Your task to perform on an android device: open chrome and create a bookmark for the current page Image 0: 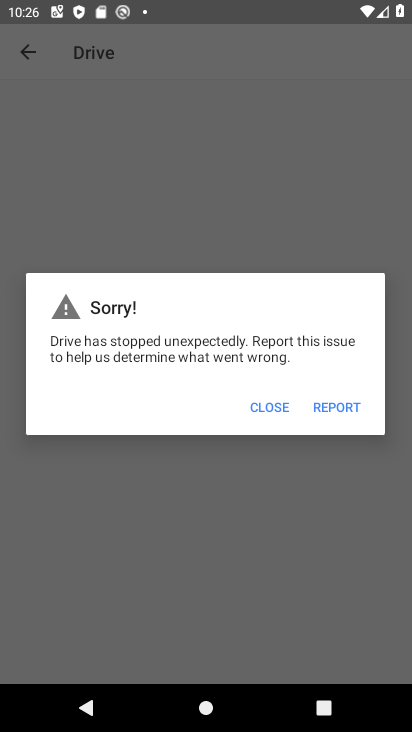
Step 0: drag from (211, 472) to (171, 190)
Your task to perform on an android device: open chrome and create a bookmark for the current page Image 1: 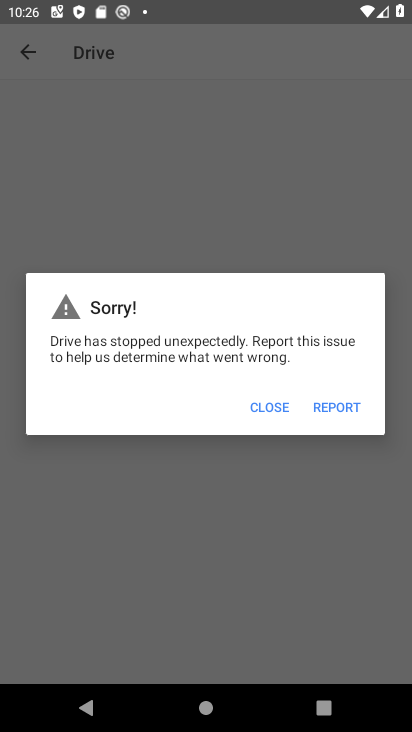
Step 1: click (272, 404)
Your task to perform on an android device: open chrome and create a bookmark for the current page Image 2: 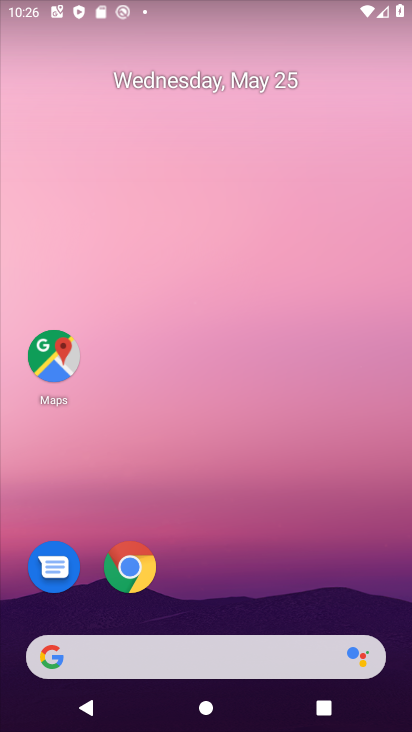
Step 2: drag from (196, 388) to (142, 112)
Your task to perform on an android device: open chrome and create a bookmark for the current page Image 3: 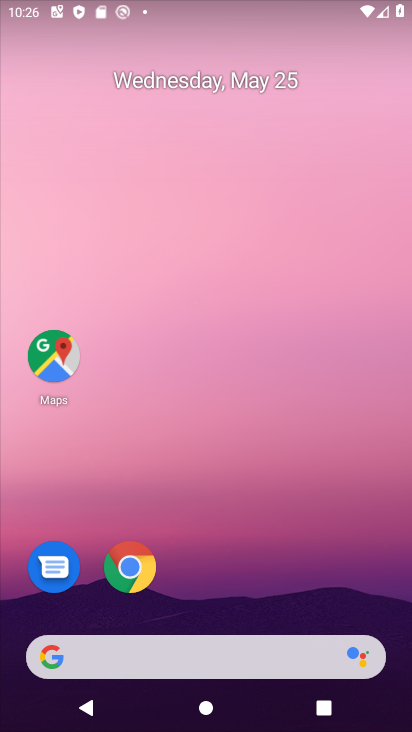
Step 3: drag from (271, 691) to (61, 198)
Your task to perform on an android device: open chrome and create a bookmark for the current page Image 4: 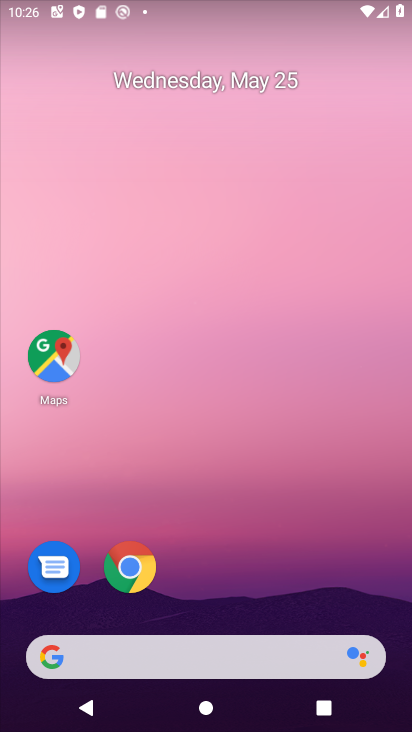
Step 4: drag from (116, 167) to (114, 108)
Your task to perform on an android device: open chrome and create a bookmark for the current page Image 5: 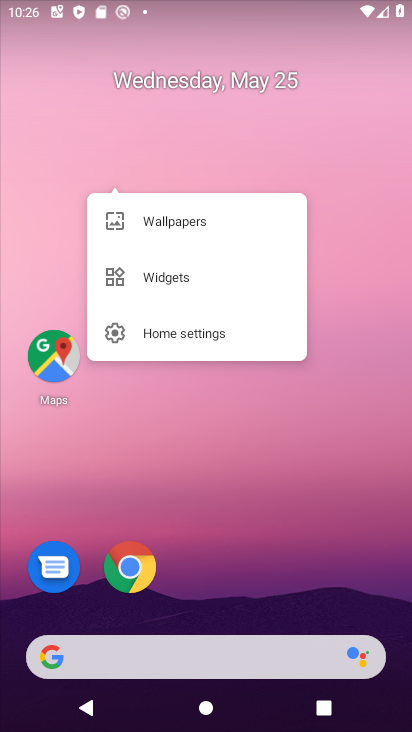
Step 5: click (147, 398)
Your task to perform on an android device: open chrome and create a bookmark for the current page Image 6: 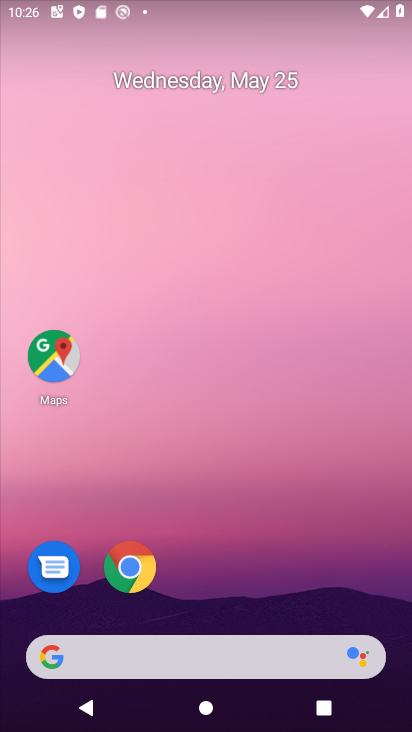
Step 6: click (147, 398)
Your task to perform on an android device: open chrome and create a bookmark for the current page Image 7: 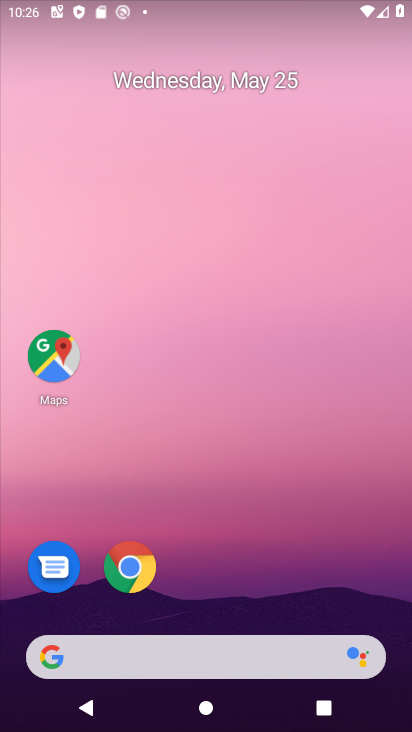
Step 7: click (147, 398)
Your task to perform on an android device: open chrome and create a bookmark for the current page Image 8: 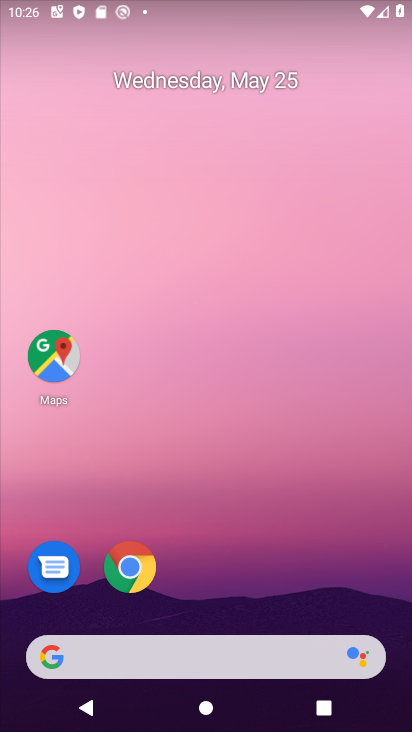
Step 8: drag from (244, 663) to (184, 264)
Your task to perform on an android device: open chrome and create a bookmark for the current page Image 9: 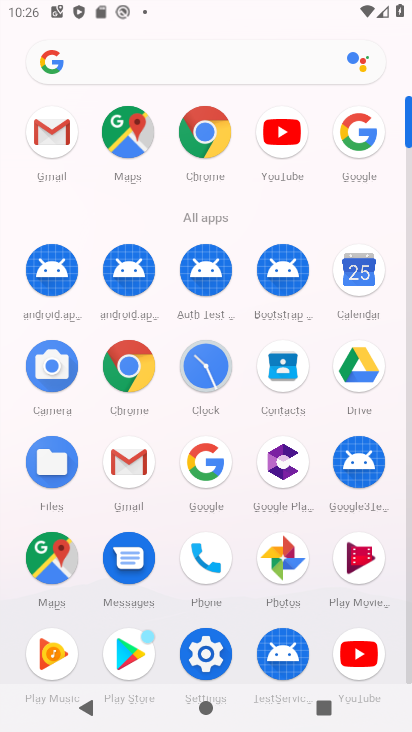
Step 9: click (190, 132)
Your task to perform on an android device: open chrome and create a bookmark for the current page Image 10: 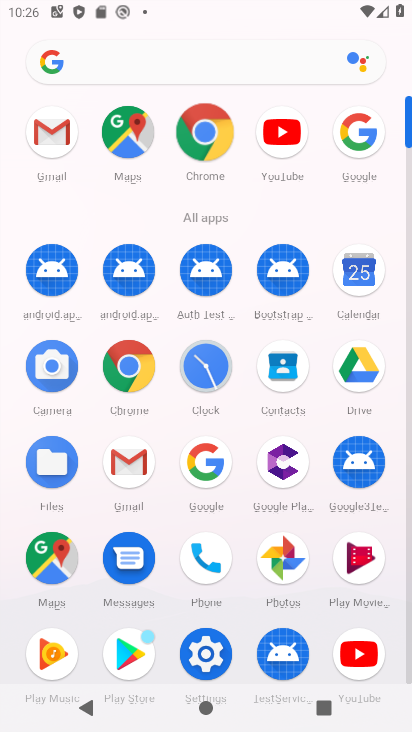
Step 10: click (190, 132)
Your task to perform on an android device: open chrome and create a bookmark for the current page Image 11: 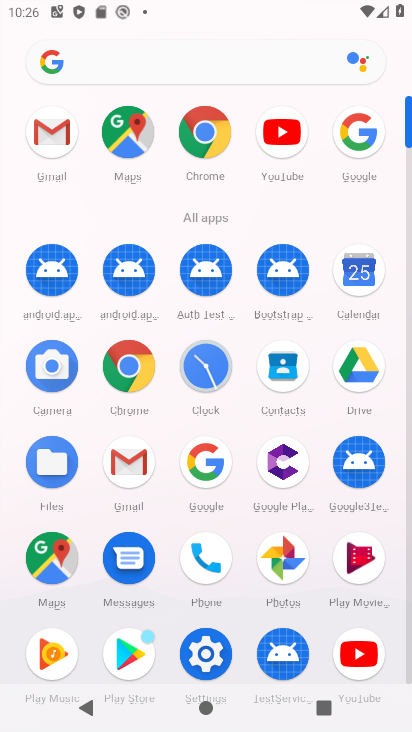
Step 11: click (191, 132)
Your task to perform on an android device: open chrome and create a bookmark for the current page Image 12: 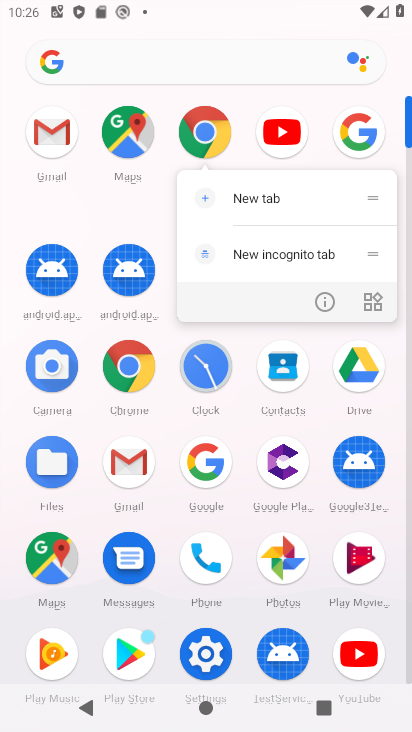
Step 12: click (202, 130)
Your task to perform on an android device: open chrome and create a bookmark for the current page Image 13: 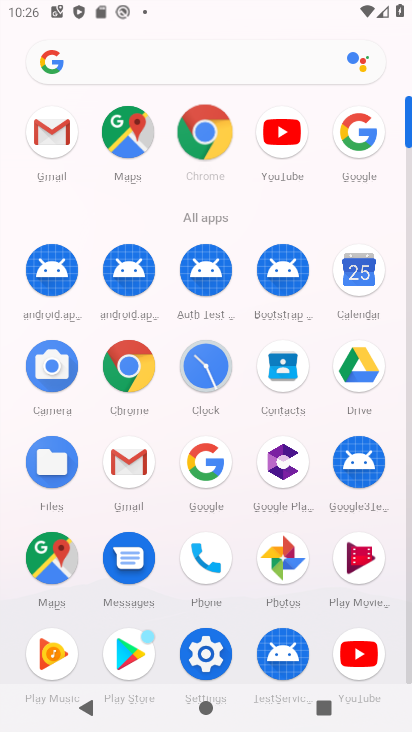
Step 13: click (203, 129)
Your task to perform on an android device: open chrome and create a bookmark for the current page Image 14: 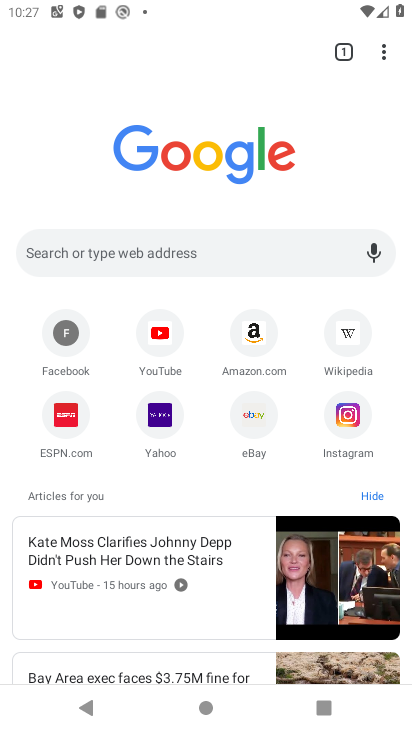
Step 14: drag from (382, 53) to (363, 89)
Your task to perform on an android device: open chrome and create a bookmark for the current page Image 15: 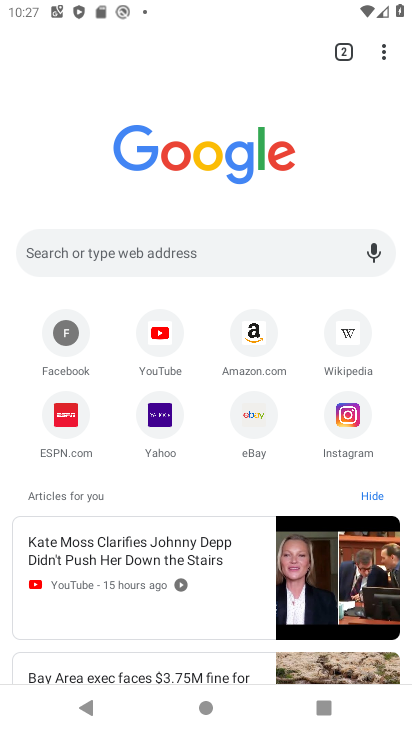
Step 15: click (44, 254)
Your task to perform on an android device: open chrome and create a bookmark for the current page Image 16: 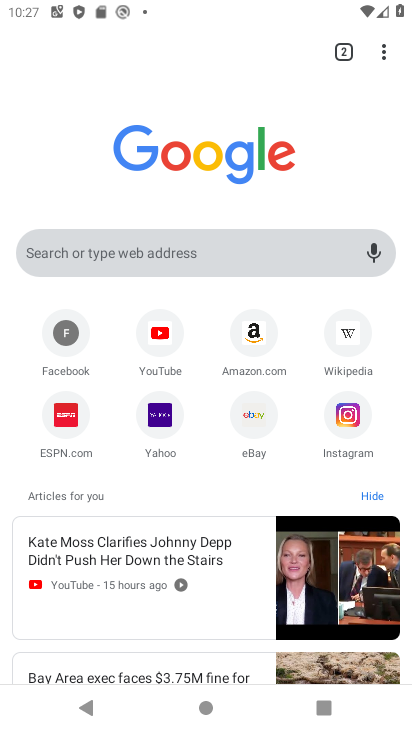
Step 16: click (44, 254)
Your task to perform on an android device: open chrome and create a bookmark for the current page Image 17: 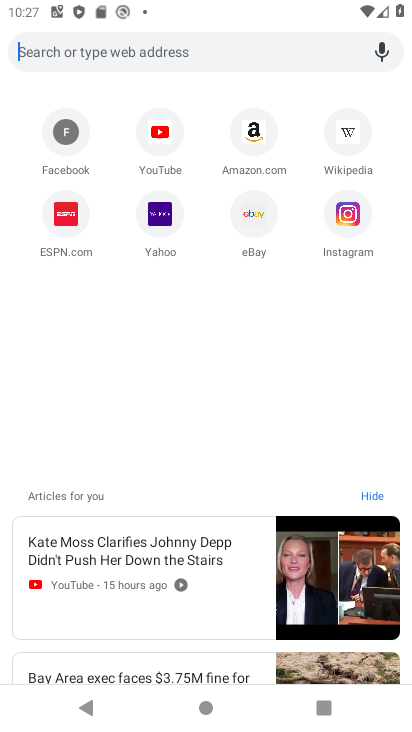
Step 17: click (41, 252)
Your task to perform on an android device: open chrome and create a bookmark for the current page Image 18: 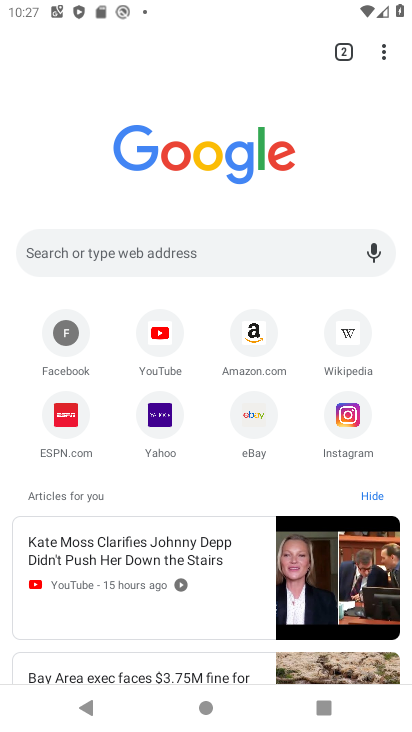
Step 18: click (31, 242)
Your task to perform on an android device: open chrome and create a bookmark for the current page Image 19: 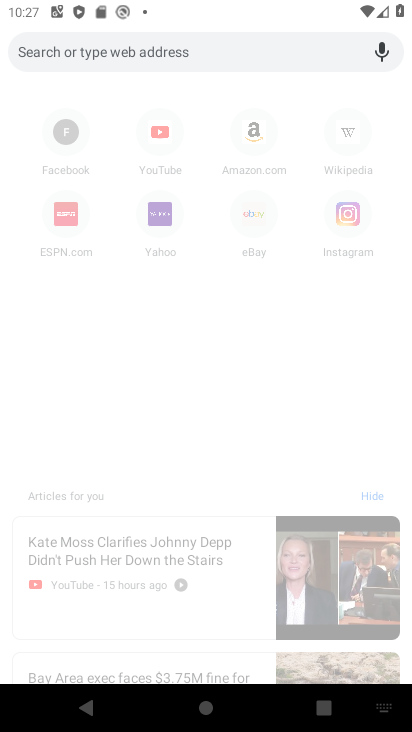
Step 19: type "www.maran .com"
Your task to perform on an android device: open chrome and create a bookmark for the current page Image 20: 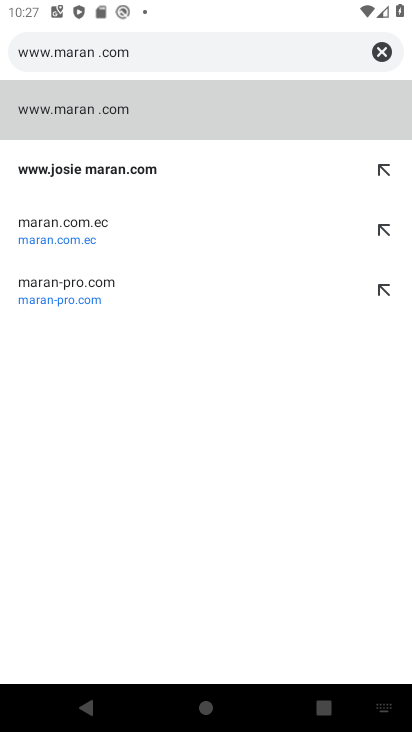
Step 20: click (77, 104)
Your task to perform on an android device: open chrome and create a bookmark for the current page Image 21: 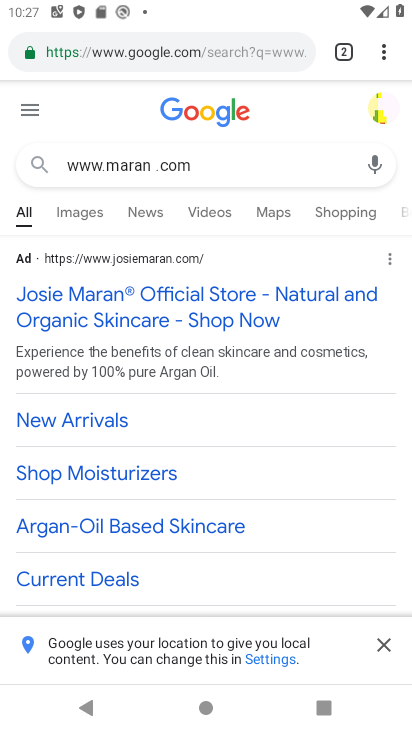
Step 21: drag from (388, 49) to (222, 53)
Your task to perform on an android device: open chrome and create a bookmark for the current page Image 22: 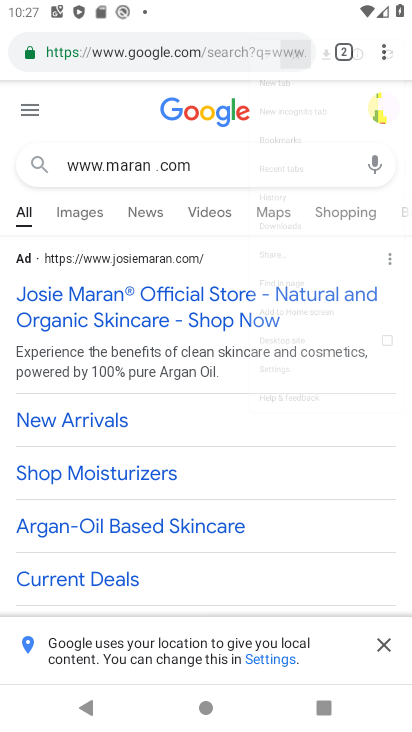
Step 22: click (225, 55)
Your task to perform on an android device: open chrome and create a bookmark for the current page Image 23: 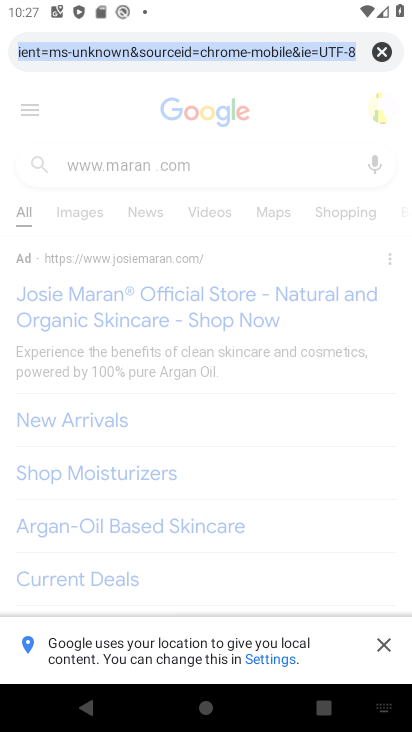
Step 23: click (379, 639)
Your task to perform on an android device: open chrome and create a bookmark for the current page Image 24: 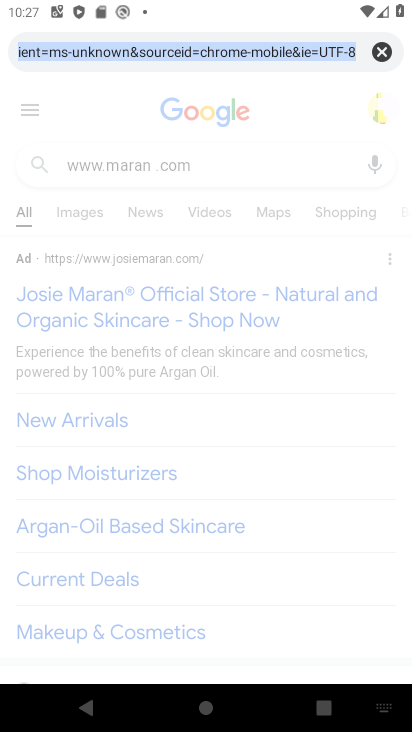
Step 24: task complete